Your task to perform on an android device: toggle sleep mode Image 0: 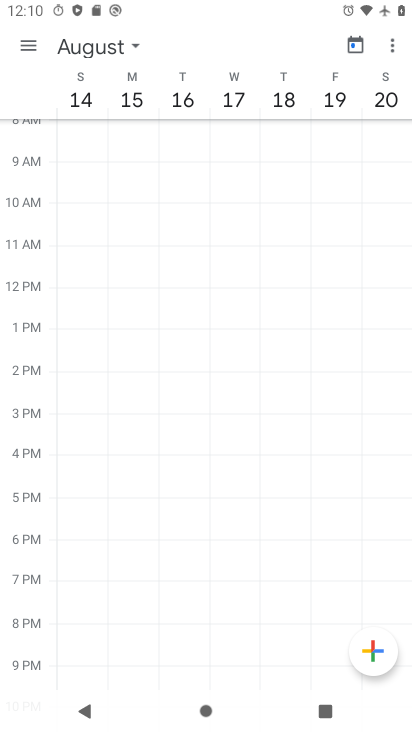
Step 0: press home button
Your task to perform on an android device: toggle sleep mode Image 1: 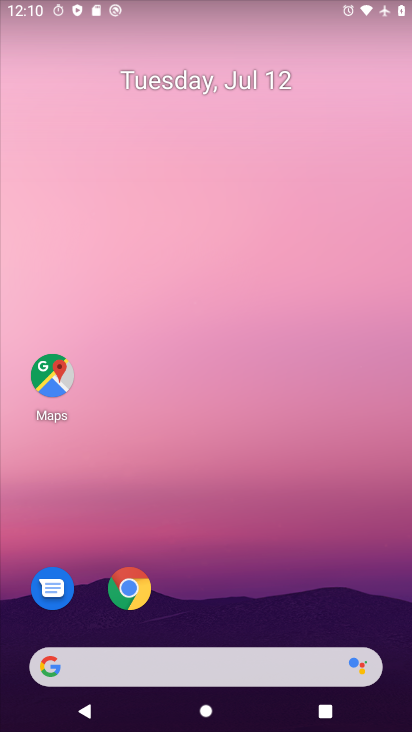
Step 1: drag from (215, 672) to (346, 96)
Your task to perform on an android device: toggle sleep mode Image 2: 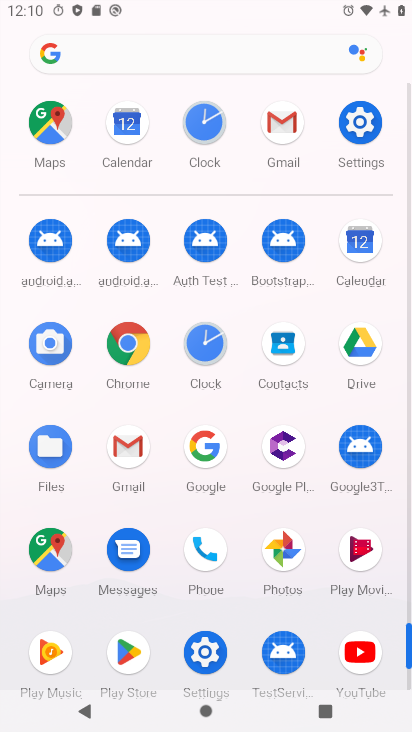
Step 2: click (362, 133)
Your task to perform on an android device: toggle sleep mode Image 3: 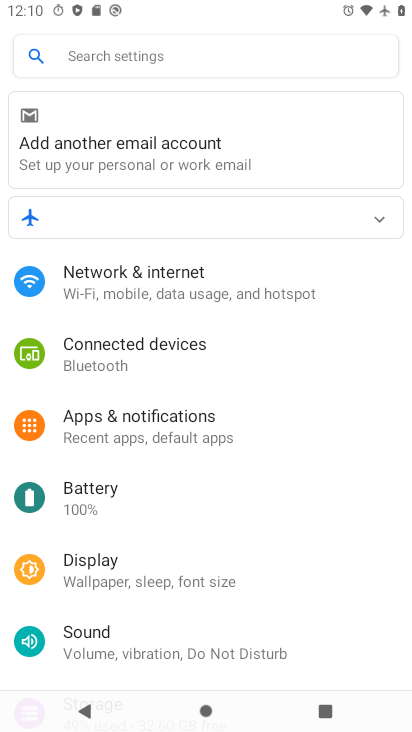
Step 3: click (161, 575)
Your task to perform on an android device: toggle sleep mode Image 4: 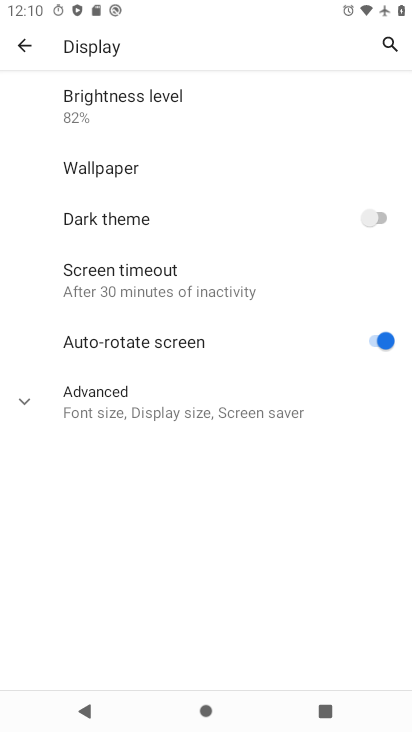
Step 4: click (164, 417)
Your task to perform on an android device: toggle sleep mode Image 5: 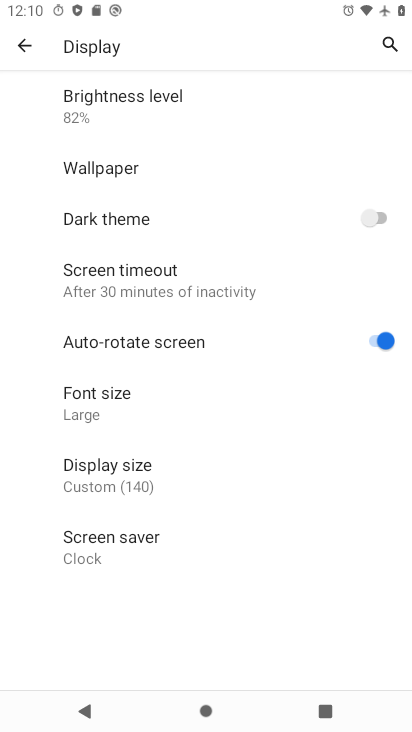
Step 5: task complete